Your task to perform on an android device: Open calendar and show me the fourth week of next month Image 0: 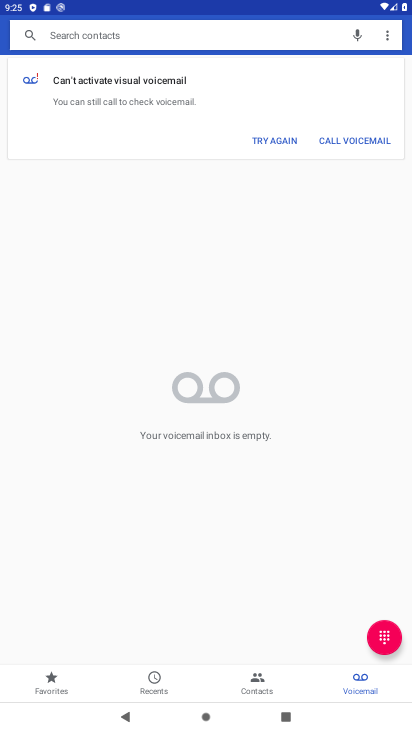
Step 0: press home button
Your task to perform on an android device: Open calendar and show me the fourth week of next month Image 1: 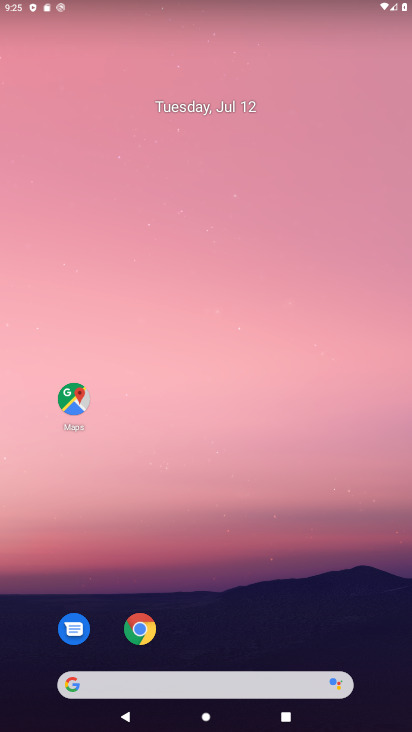
Step 1: drag from (296, 603) to (348, 163)
Your task to perform on an android device: Open calendar and show me the fourth week of next month Image 2: 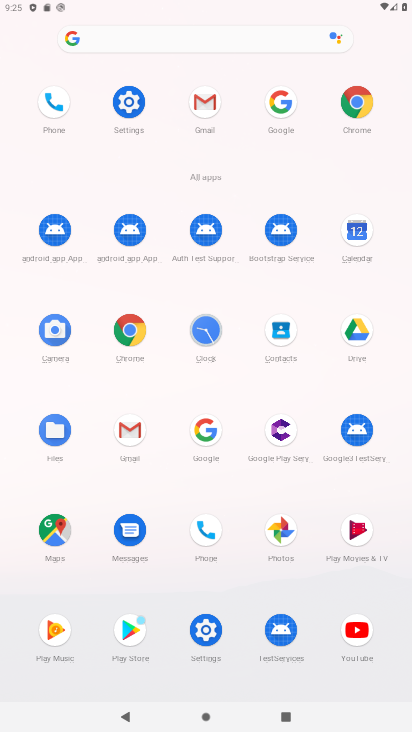
Step 2: click (357, 233)
Your task to perform on an android device: Open calendar and show me the fourth week of next month Image 3: 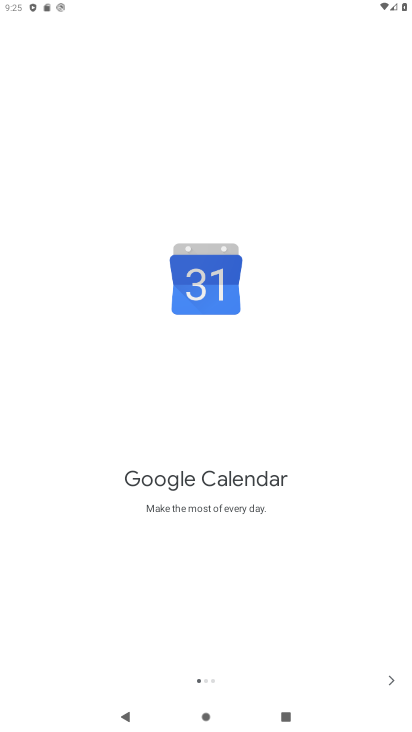
Step 3: click (392, 676)
Your task to perform on an android device: Open calendar and show me the fourth week of next month Image 4: 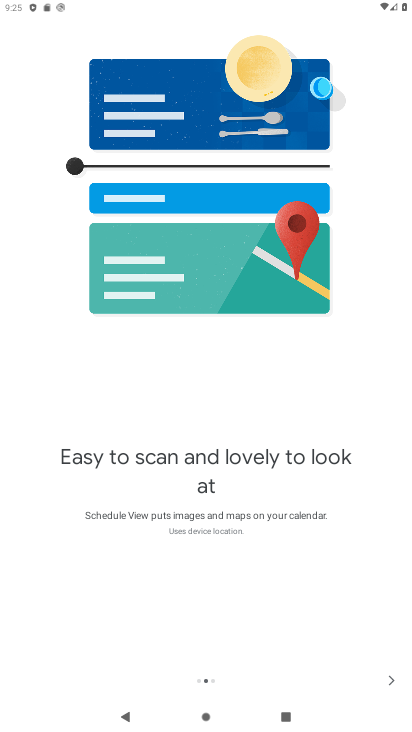
Step 4: click (392, 676)
Your task to perform on an android device: Open calendar and show me the fourth week of next month Image 5: 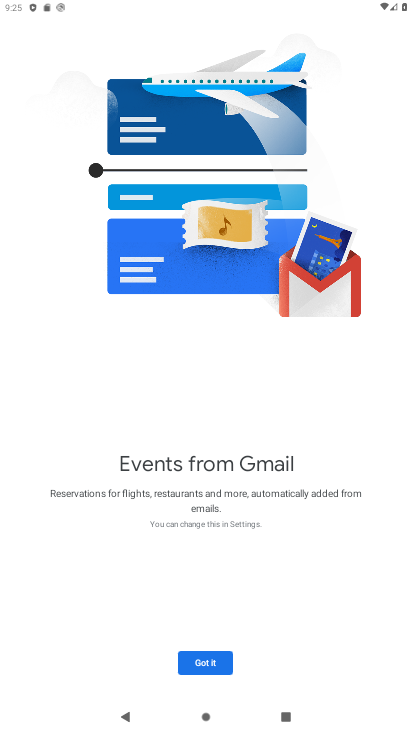
Step 5: click (216, 663)
Your task to perform on an android device: Open calendar and show me the fourth week of next month Image 6: 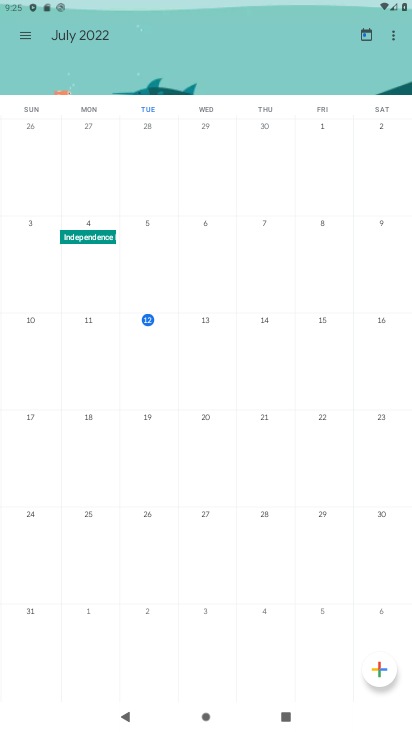
Step 6: drag from (370, 373) to (8, 480)
Your task to perform on an android device: Open calendar and show me the fourth week of next month Image 7: 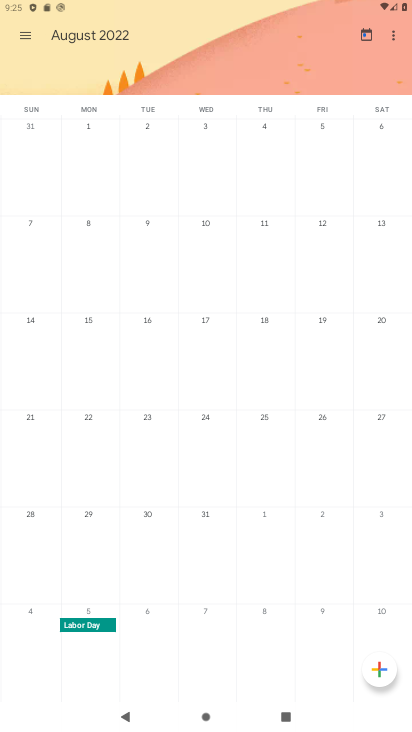
Step 7: click (207, 415)
Your task to perform on an android device: Open calendar and show me the fourth week of next month Image 8: 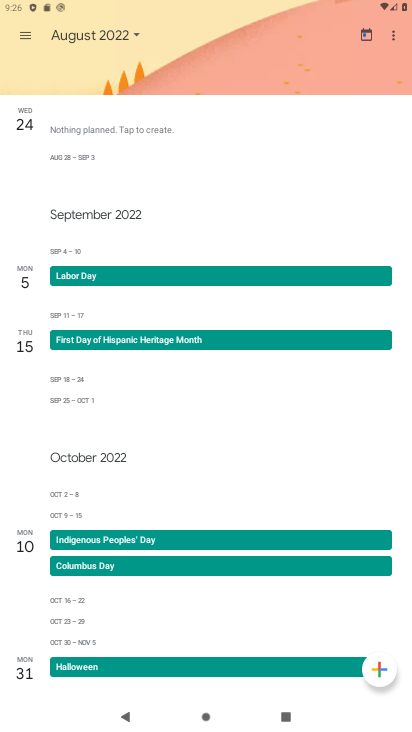
Step 8: click (28, 34)
Your task to perform on an android device: Open calendar and show me the fourth week of next month Image 9: 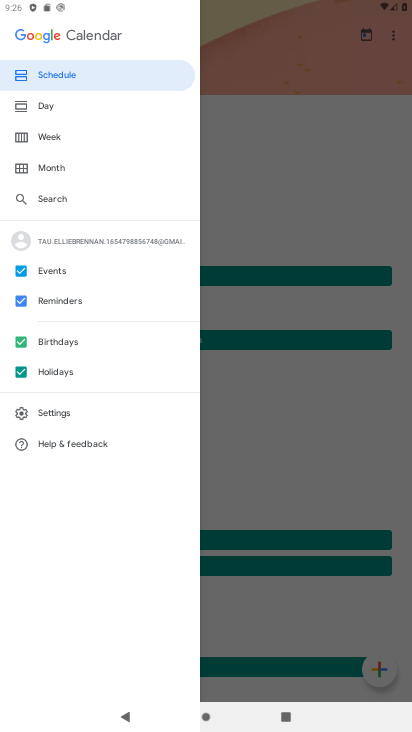
Step 9: click (55, 135)
Your task to perform on an android device: Open calendar and show me the fourth week of next month Image 10: 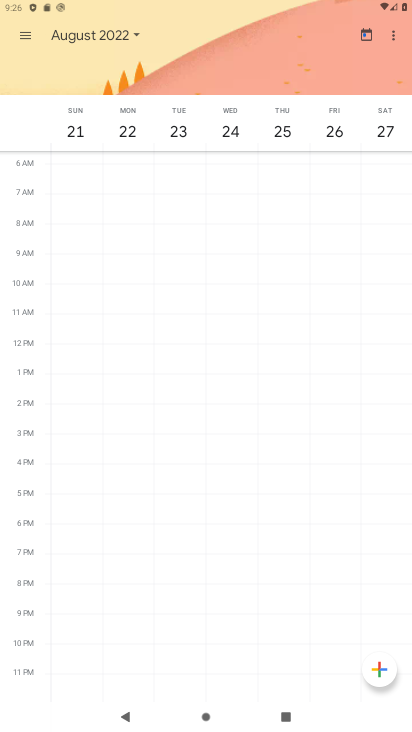
Step 10: task complete